Your task to perform on an android device: Open Google Maps Image 0: 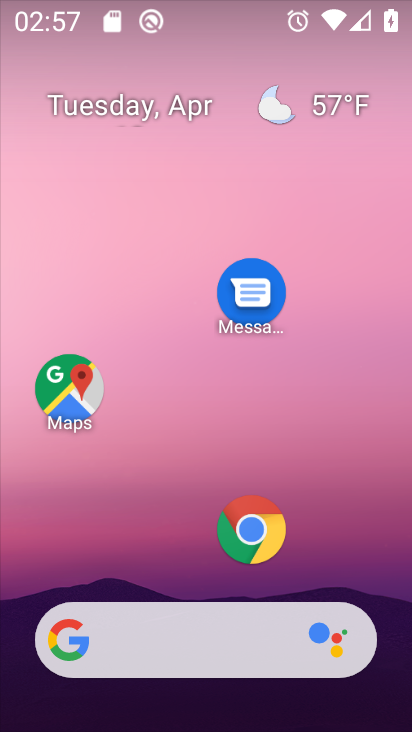
Step 0: drag from (176, 500) to (119, 109)
Your task to perform on an android device: Open Google Maps Image 1: 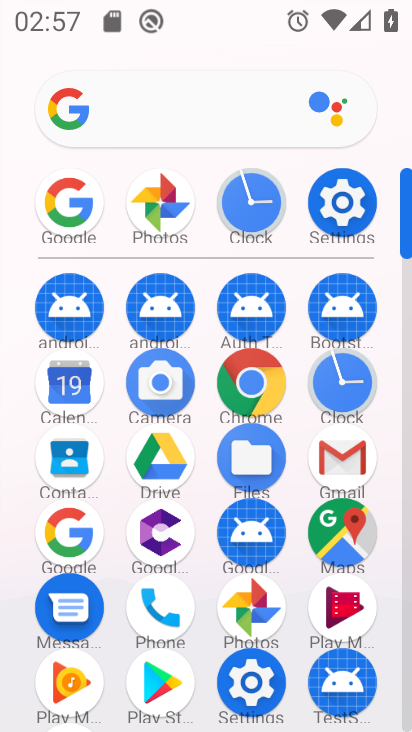
Step 1: click (335, 531)
Your task to perform on an android device: Open Google Maps Image 2: 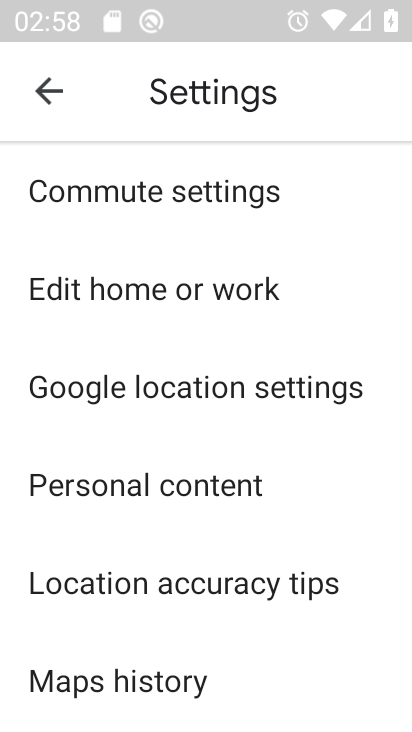
Step 2: task complete